Your task to perform on an android device: Open my contact list Image 0: 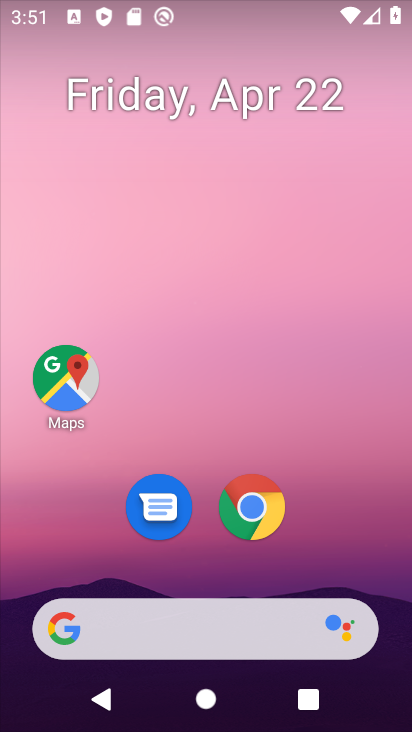
Step 0: drag from (344, 392) to (269, 26)
Your task to perform on an android device: Open my contact list Image 1: 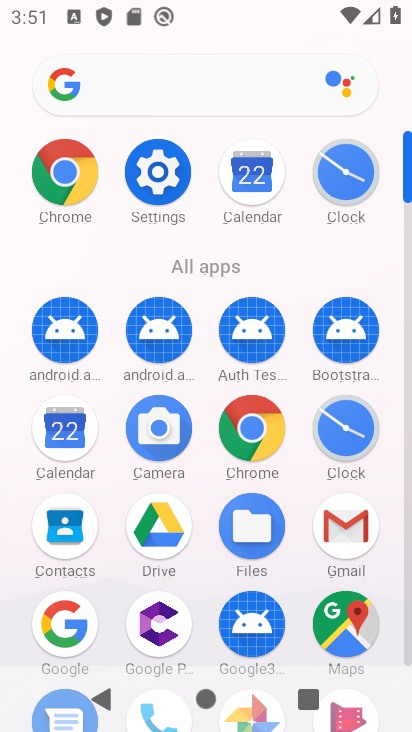
Step 1: click (53, 546)
Your task to perform on an android device: Open my contact list Image 2: 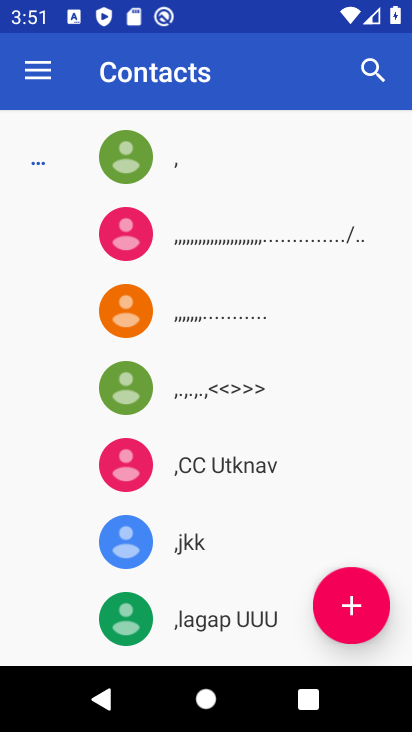
Step 2: task complete